Your task to perform on an android device: Open privacy settings Image 0: 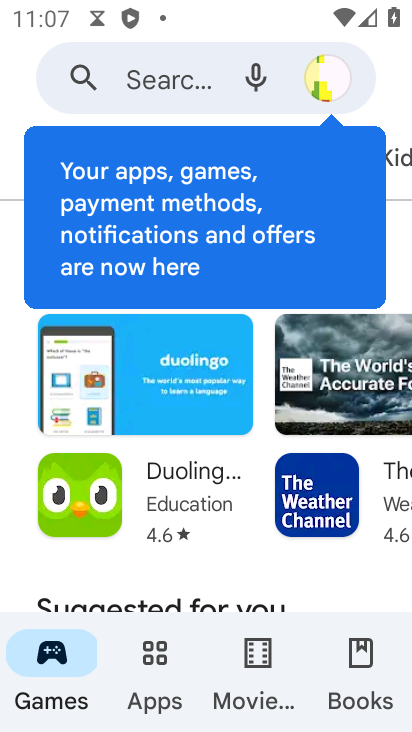
Step 0: press home button
Your task to perform on an android device: Open privacy settings Image 1: 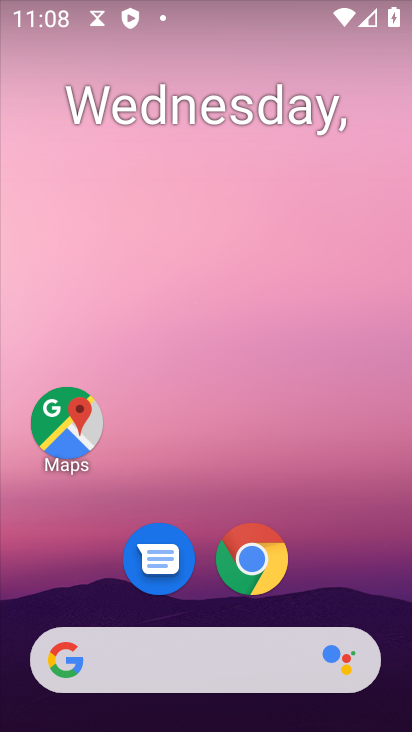
Step 1: drag from (372, 605) to (299, 135)
Your task to perform on an android device: Open privacy settings Image 2: 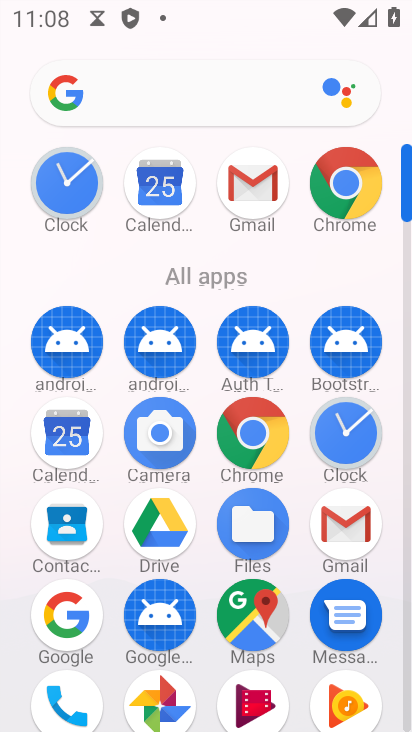
Step 2: click (406, 651)
Your task to perform on an android device: Open privacy settings Image 3: 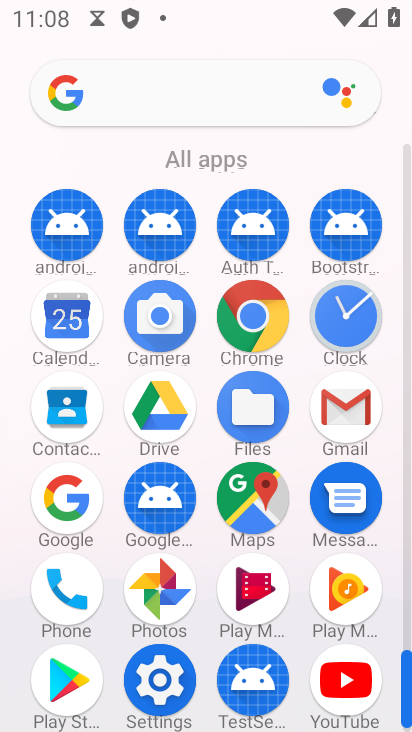
Step 3: click (173, 690)
Your task to perform on an android device: Open privacy settings Image 4: 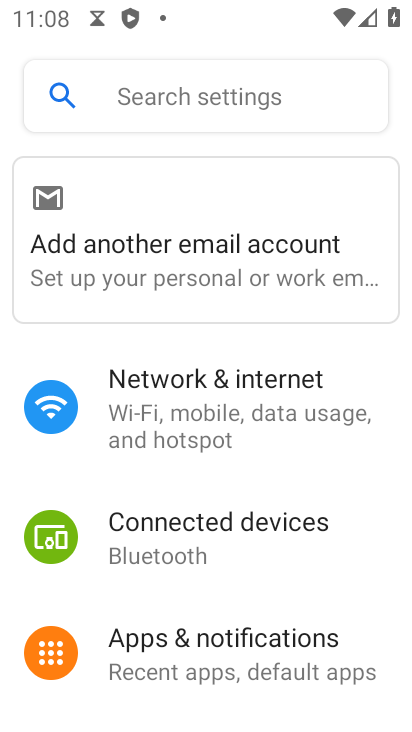
Step 4: drag from (247, 708) to (271, 304)
Your task to perform on an android device: Open privacy settings Image 5: 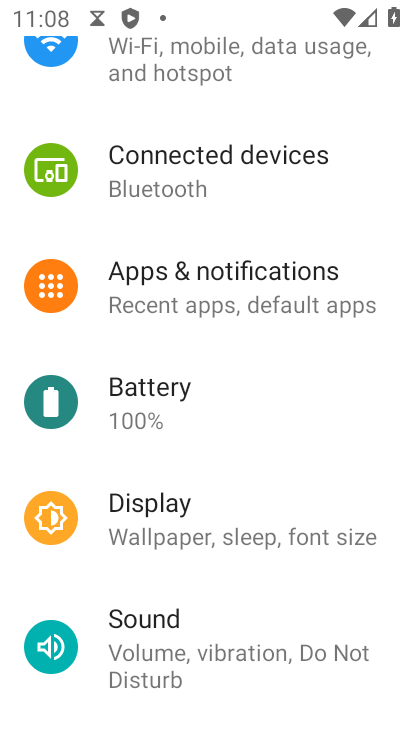
Step 5: drag from (252, 602) to (263, 191)
Your task to perform on an android device: Open privacy settings Image 6: 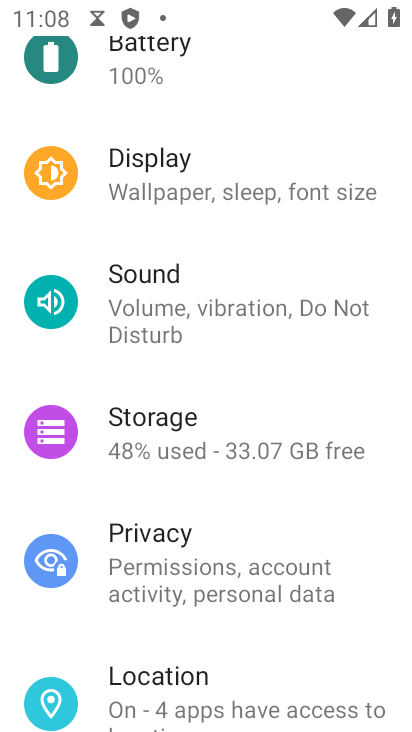
Step 6: click (236, 544)
Your task to perform on an android device: Open privacy settings Image 7: 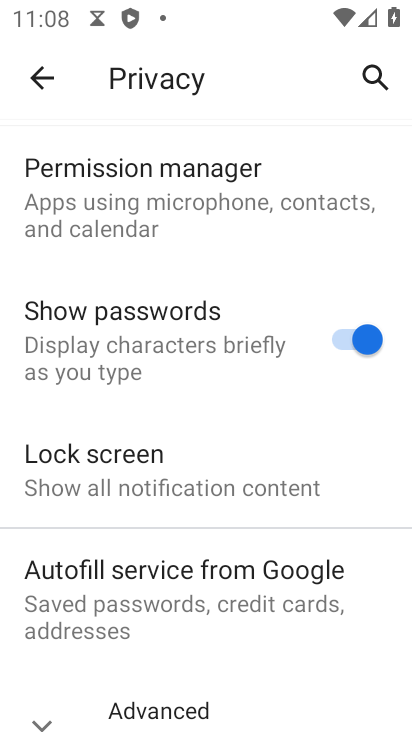
Step 7: task complete